Your task to perform on an android device: turn on airplane mode Image 0: 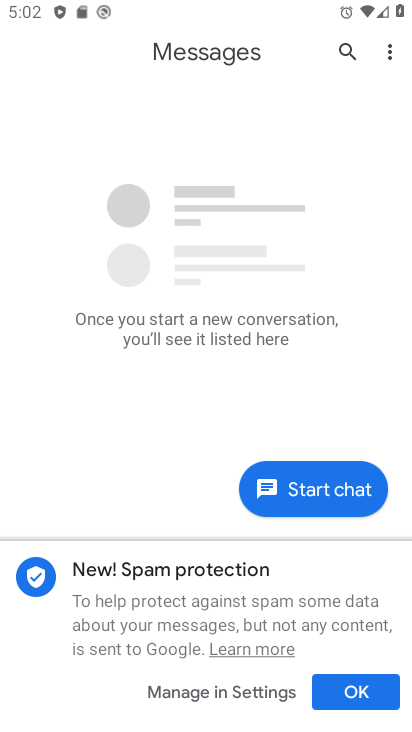
Step 0: press home button
Your task to perform on an android device: turn on airplane mode Image 1: 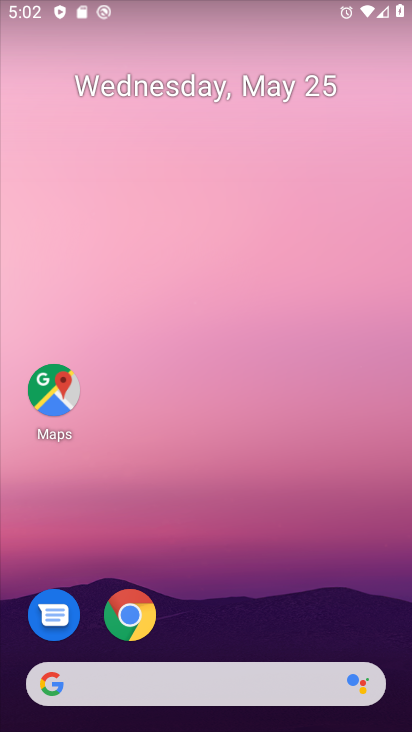
Step 1: drag from (229, 2) to (203, 509)
Your task to perform on an android device: turn on airplane mode Image 2: 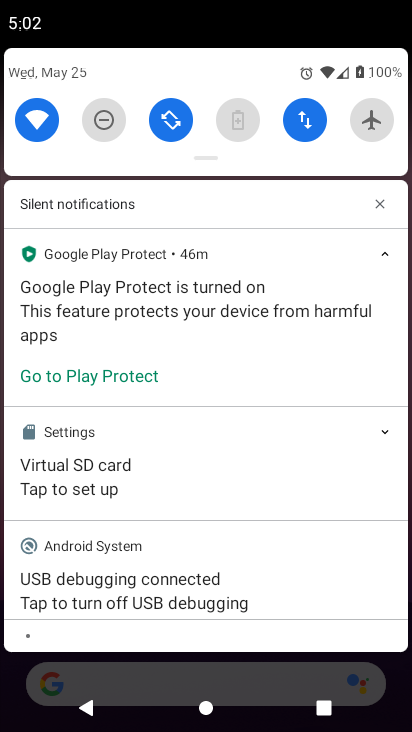
Step 2: click (374, 124)
Your task to perform on an android device: turn on airplane mode Image 3: 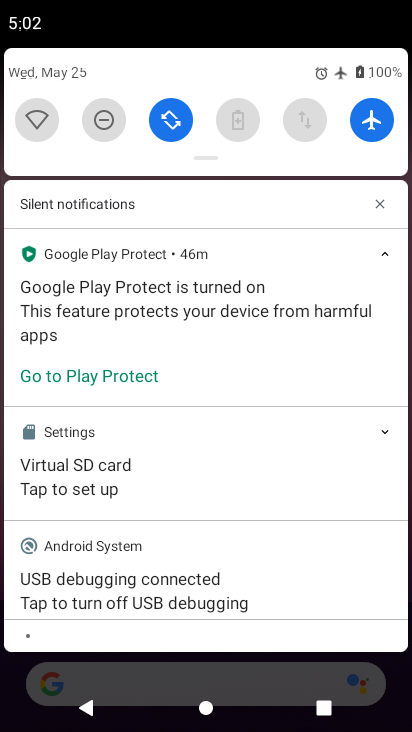
Step 3: task complete